Your task to perform on an android device: Show me productivity apps on the Play Store Image 0: 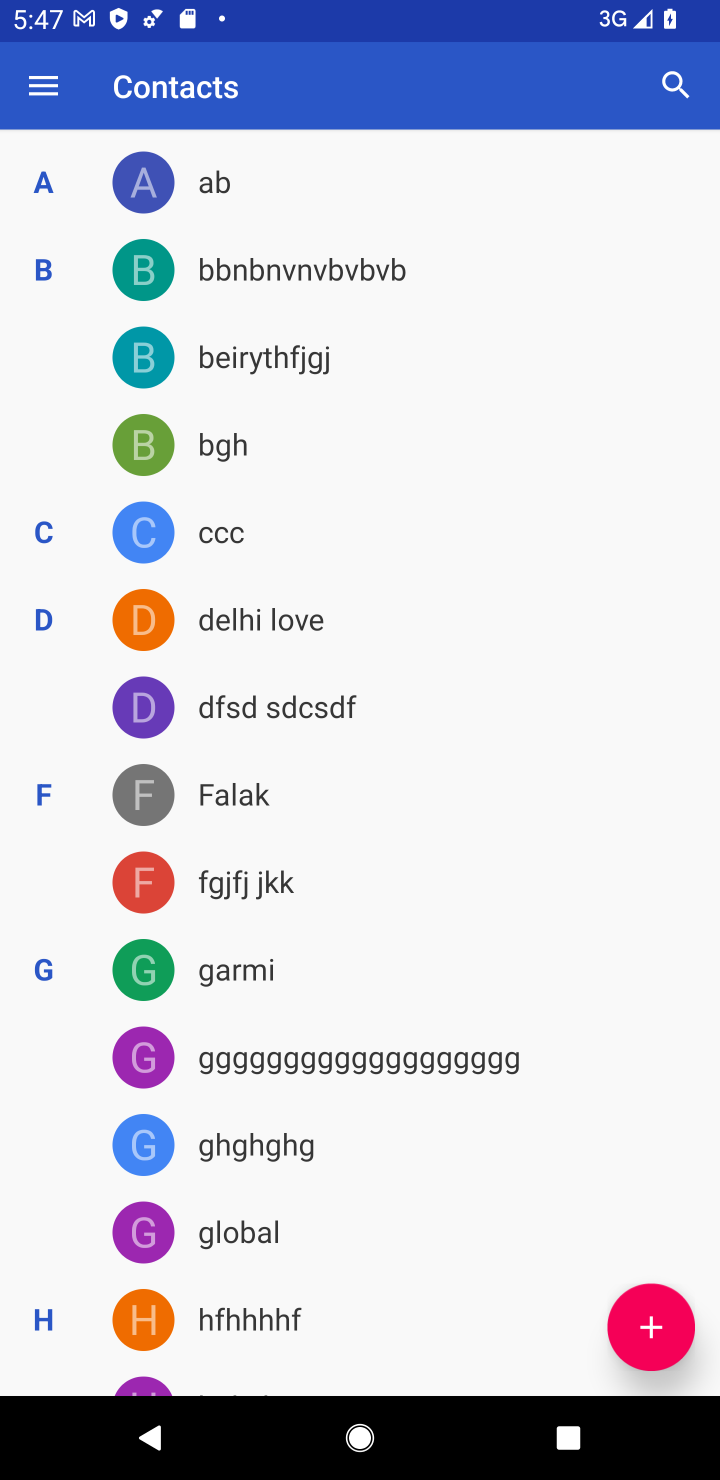
Step 0: press home button
Your task to perform on an android device: Show me productivity apps on the Play Store Image 1: 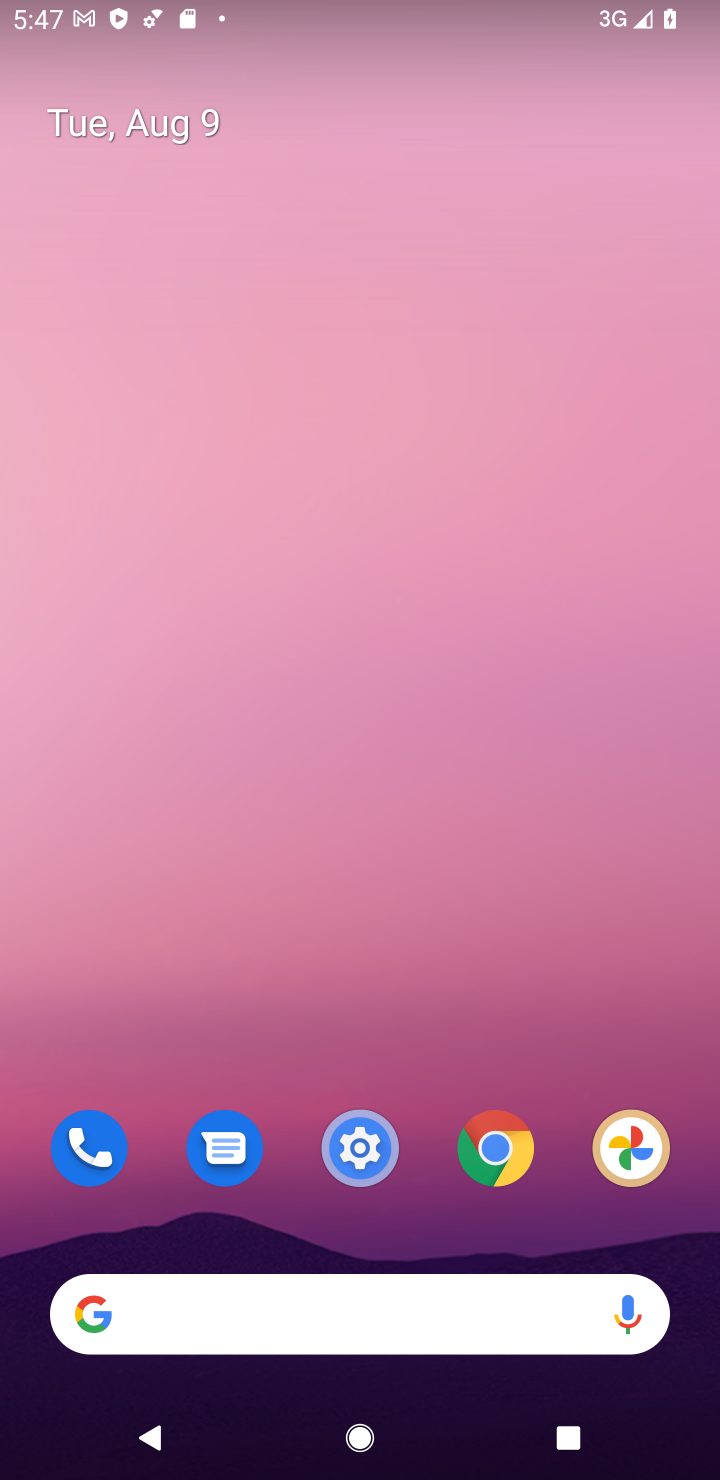
Step 1: drag from (303, 874) to (691, 152)
Your task to perform on an android device: Show me productivity apps on the Play Store Image 2: 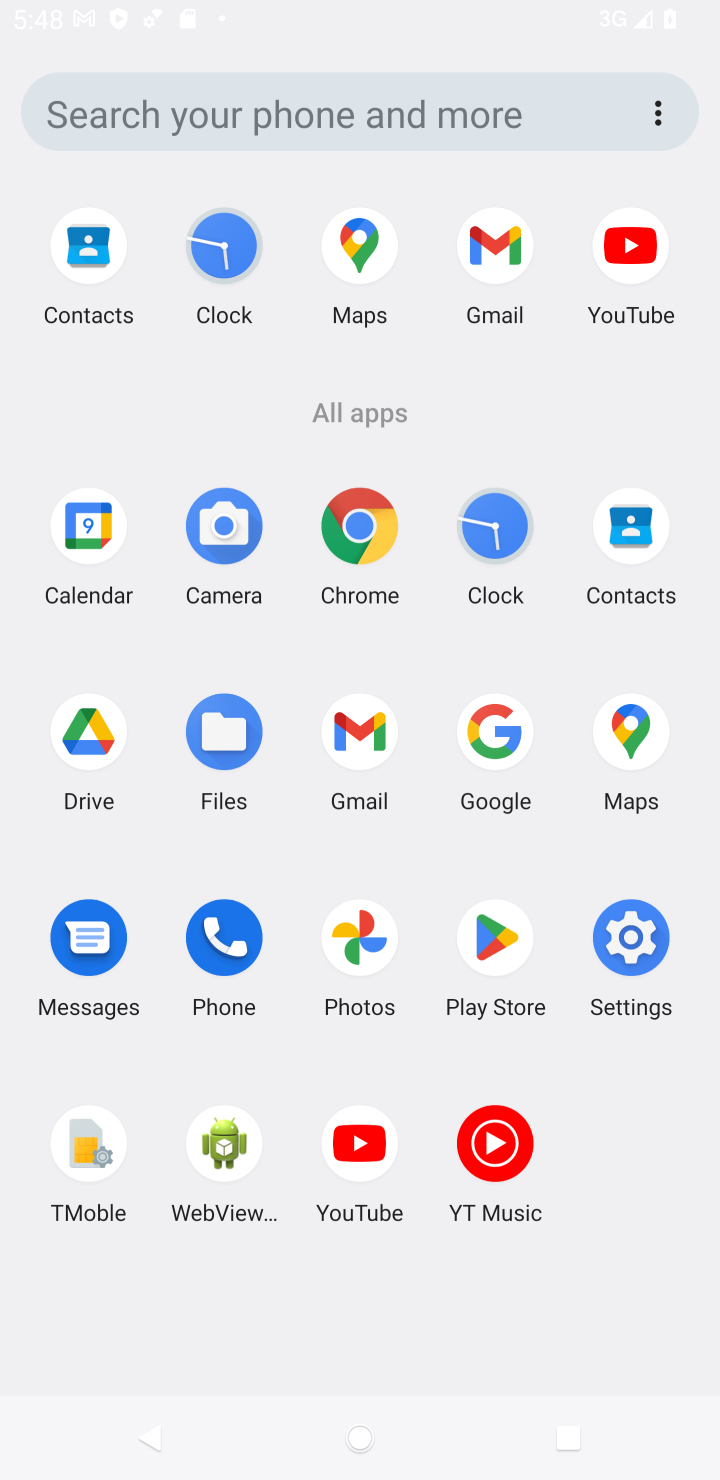
Step 2: click (488, 963)
Your task to perform on an android device: Show me productivity apps on the Play Store Image 3: 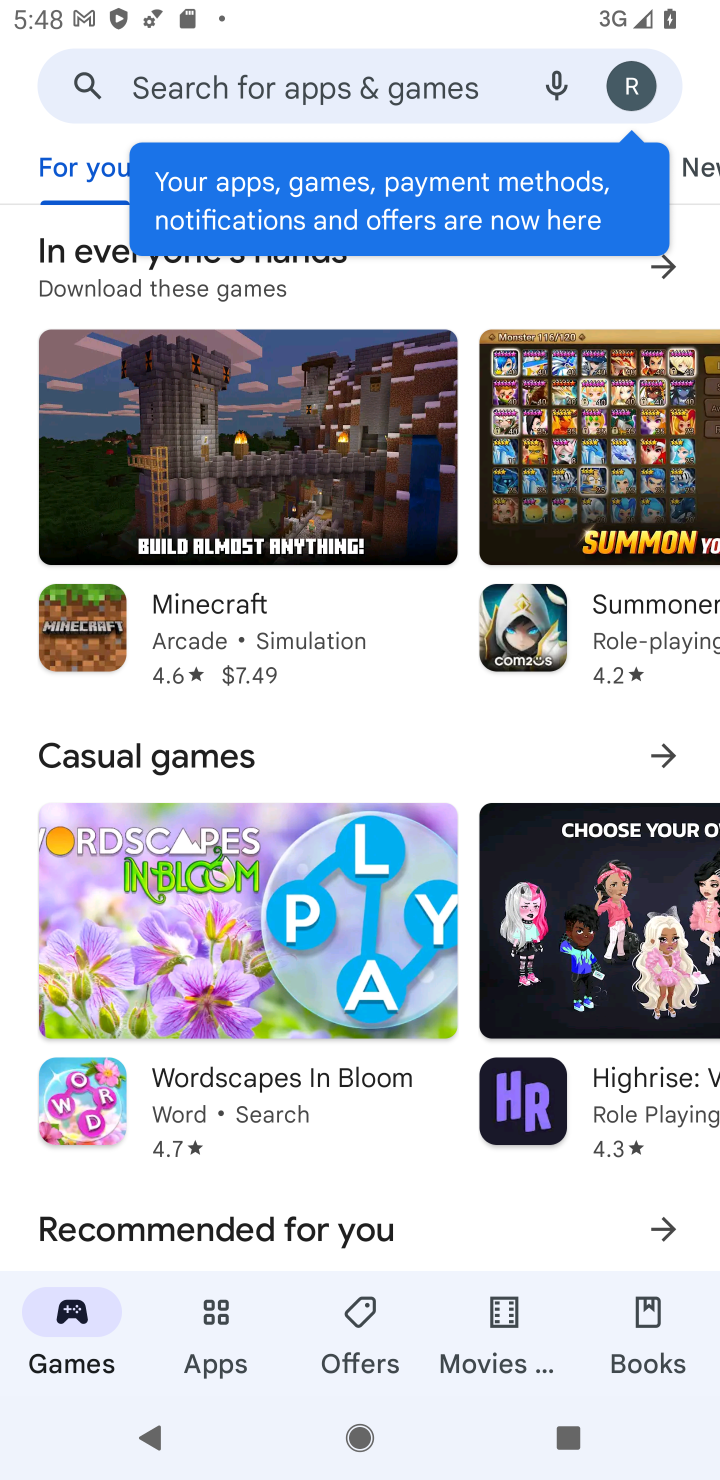
Step 3: click (208, 1347)
Your task to perform on an android device: Show me productivity apps on the Play Store Image 4: 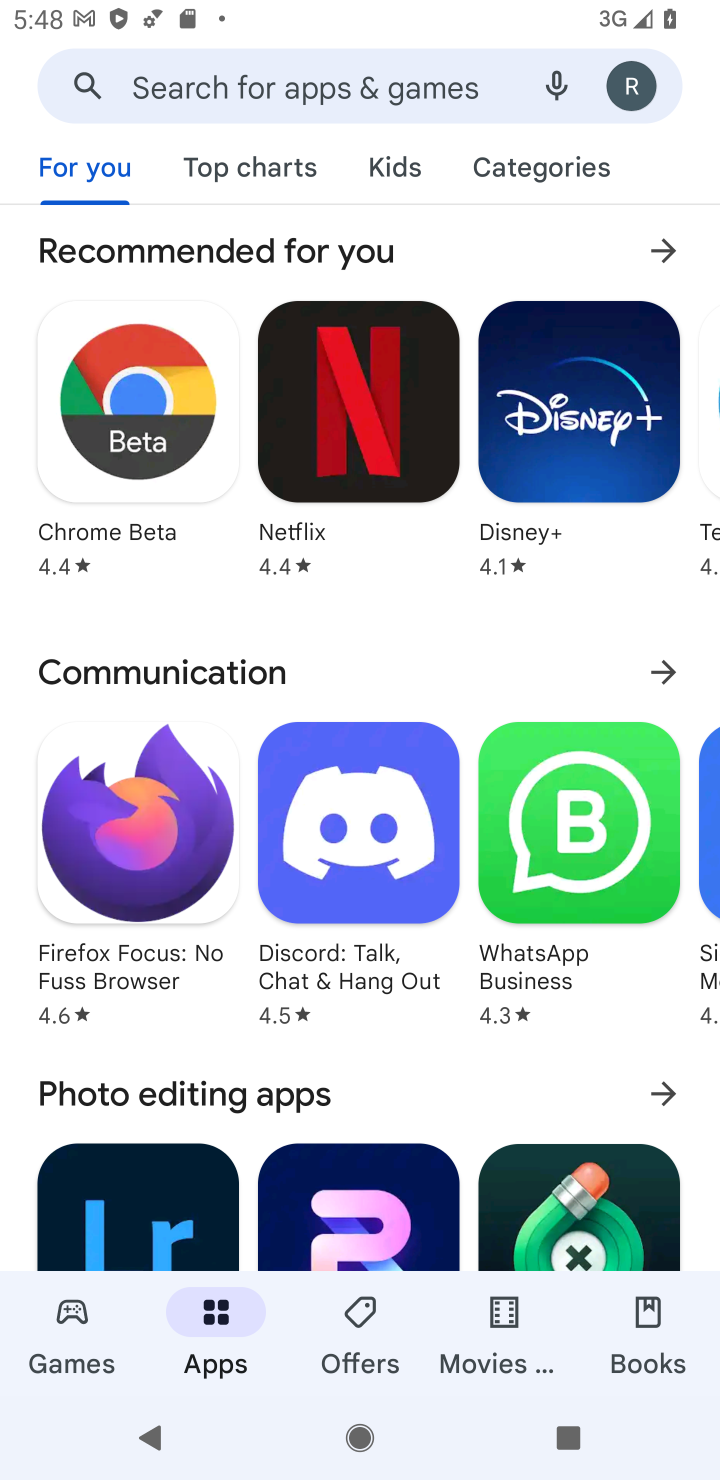
Step 4: click (548, 176)
Your task to perform on an android device: Show me productivity apps on the Play Store Image 5: 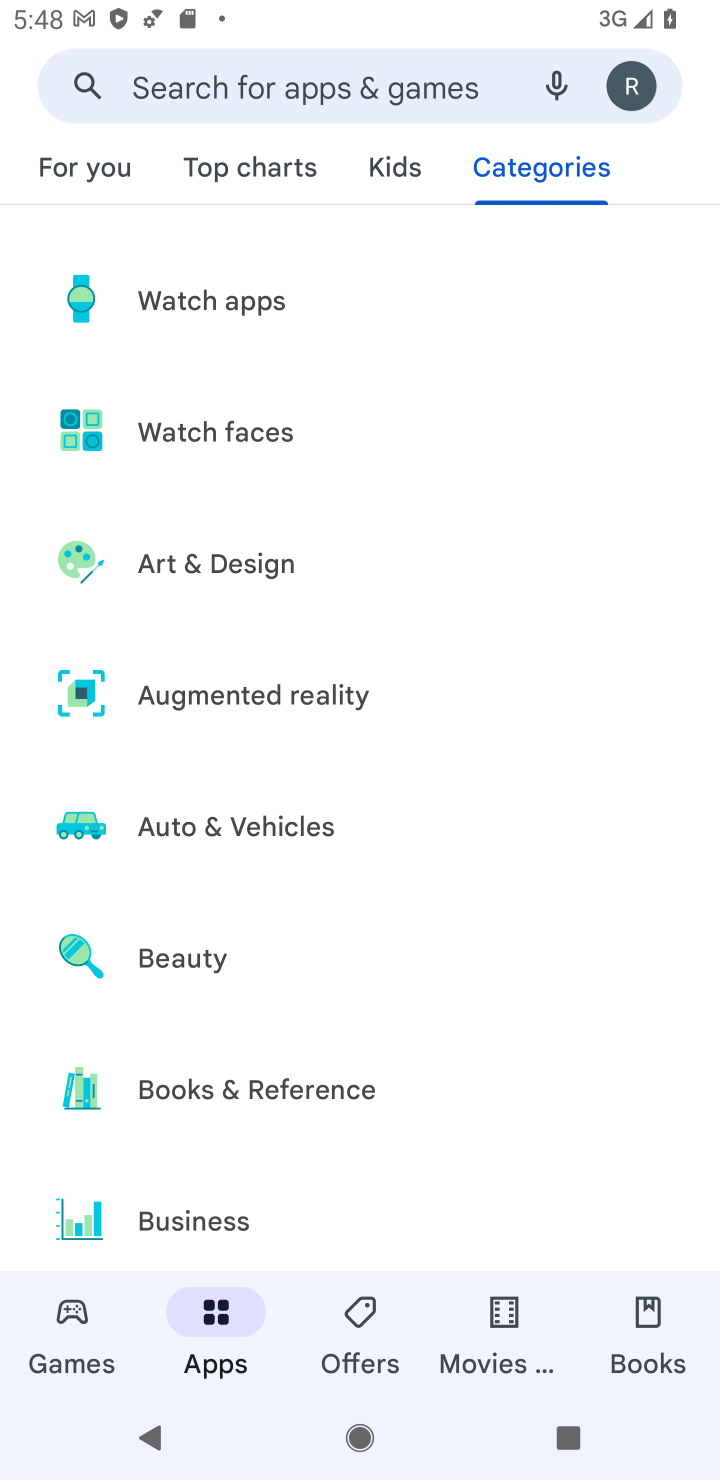
Step 5: drag from (270, 1157) to (220, 68)
Your task to perform on an android device: Show me productivity apps on the Play Store Image 6: 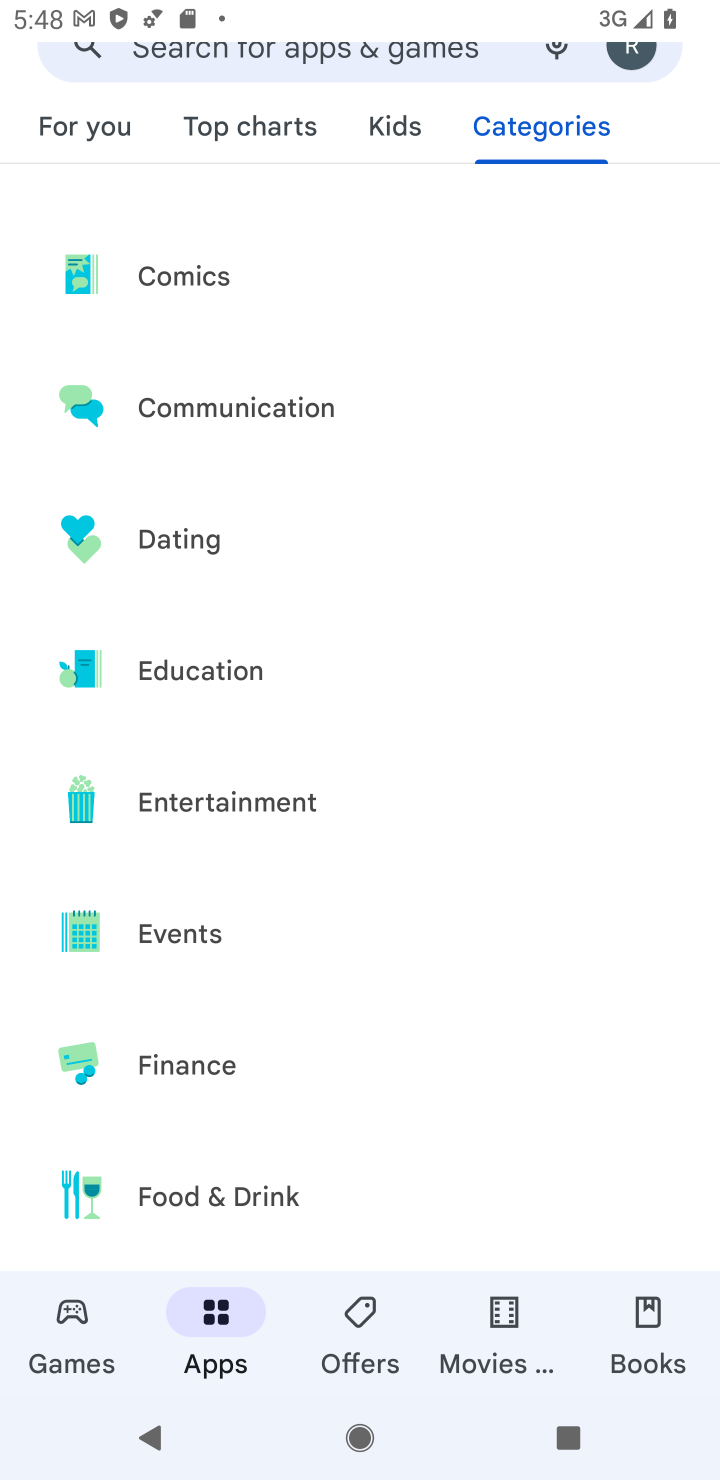
Step 6: drag from (282, 1009) to (215, 65)
Your task to perform on an android device: Show me productivity apps on the Play Store Image 7: 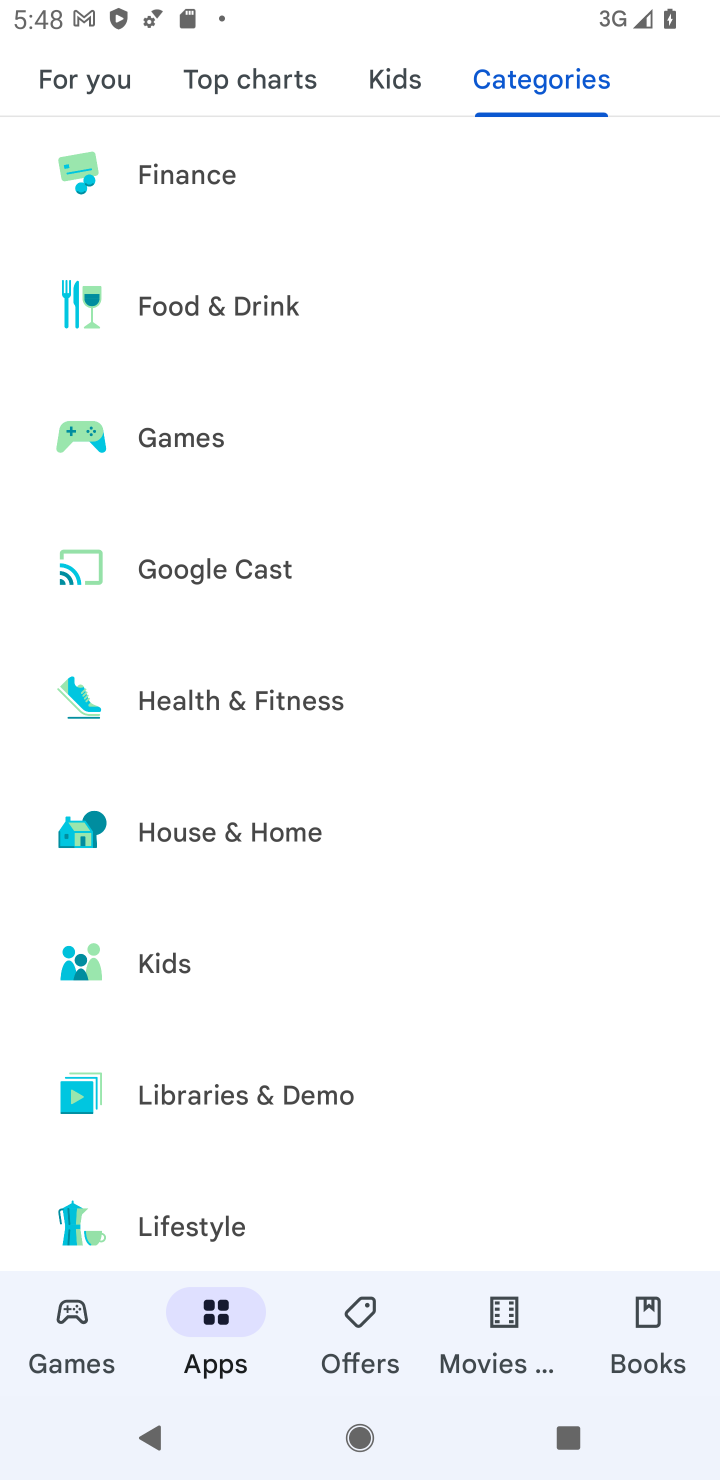
Step 7: drag from (278, 1103) to (354, 201)
Your task to perform on an android device: Show me productivity apps on the Play Store Image 8: 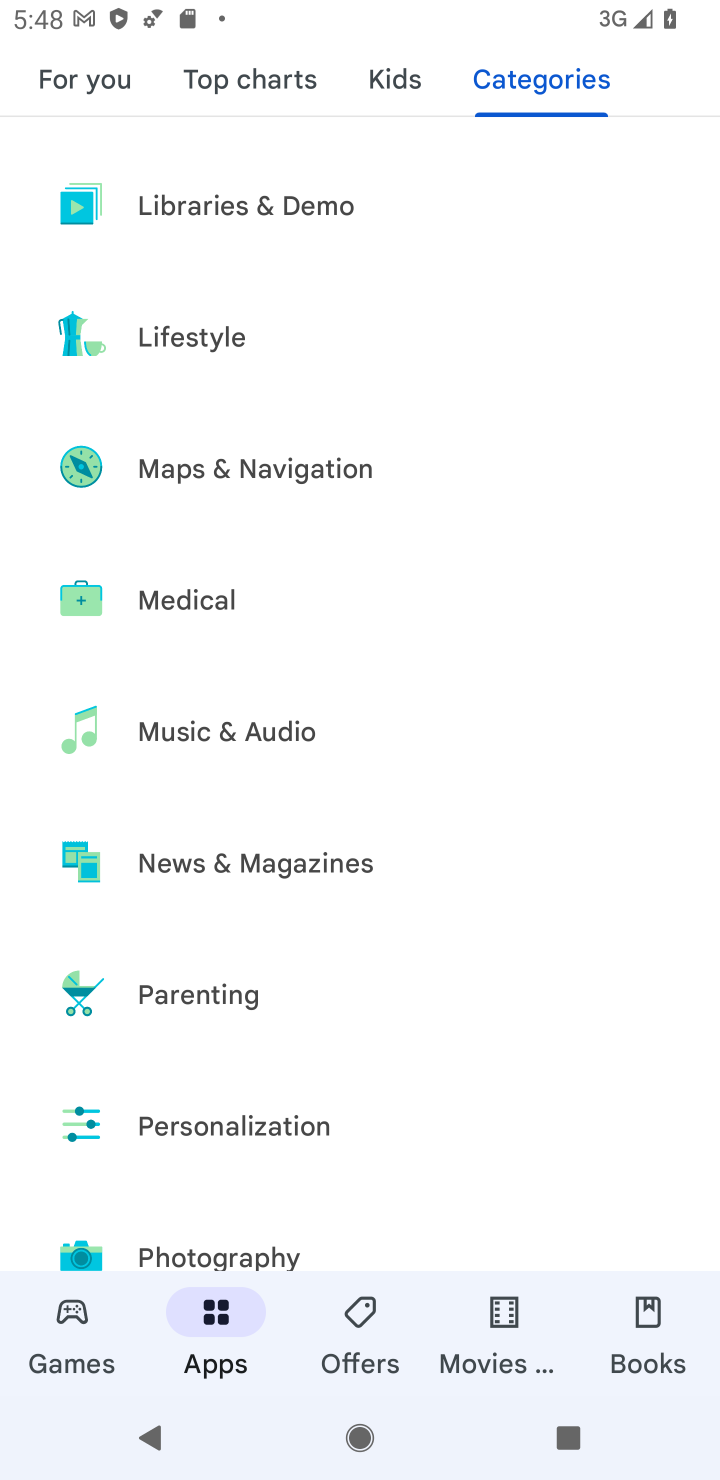
Step 8: drag from (225, 1171) to (305, 415)
Your task to perform on an android device: Show me productivity apps on the Play Store Image 9: 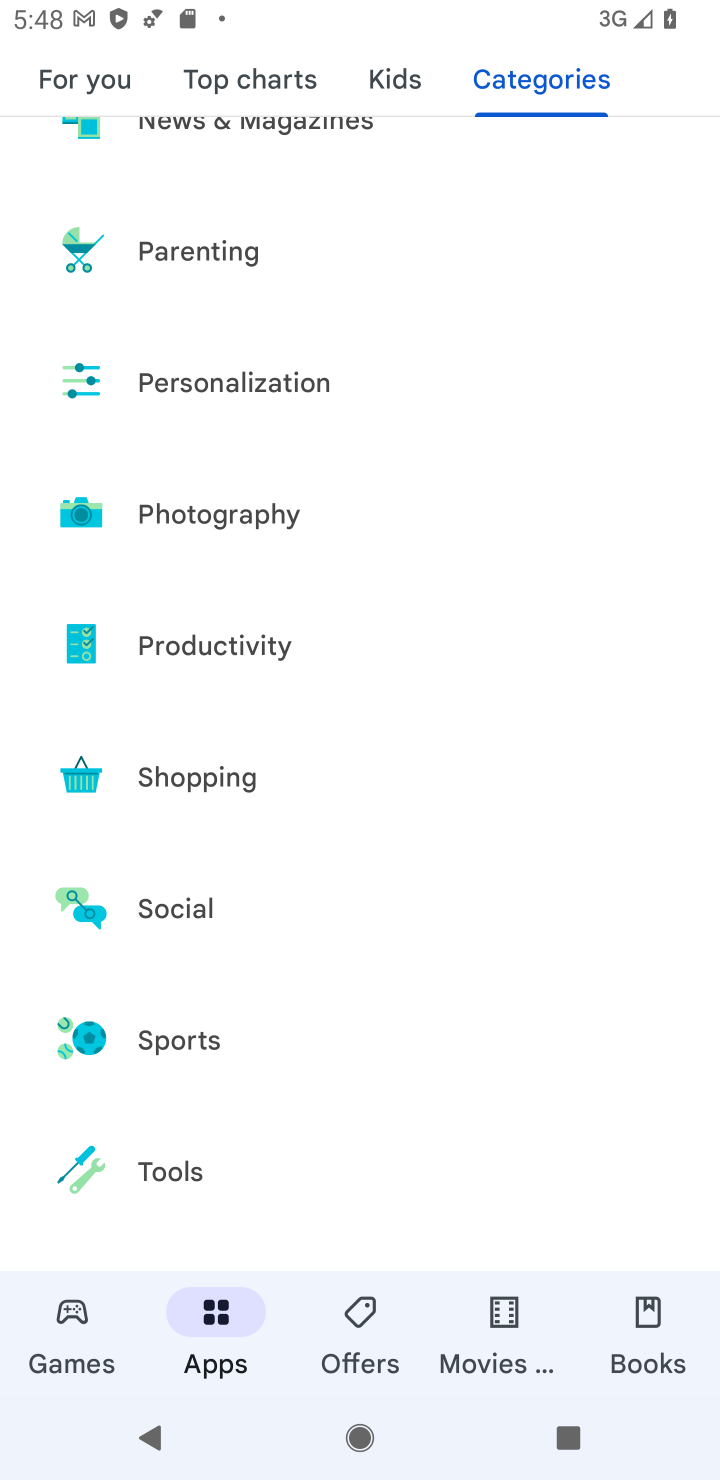
Step 9: click (214, 650)
Your task to perform on an android device: Show me productivity apps on the Play Store Image 10: 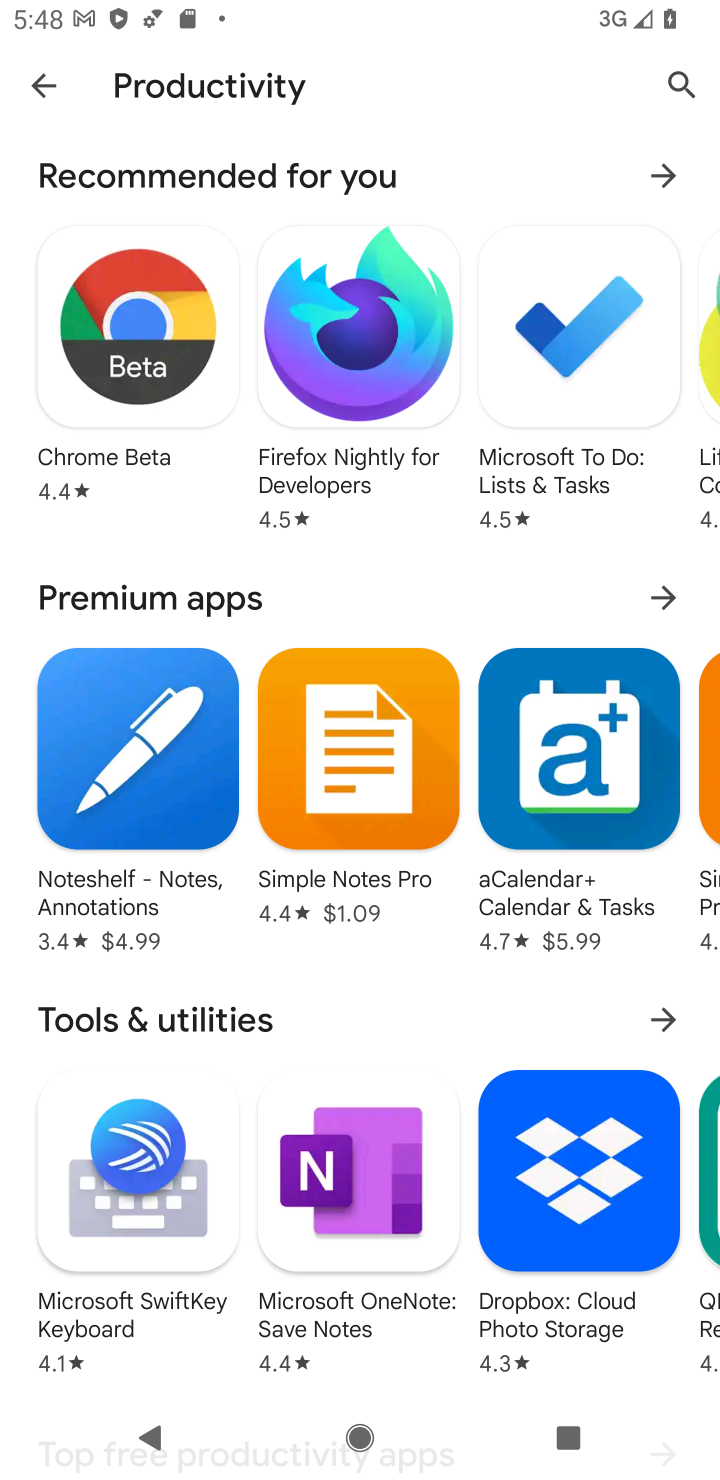
Step 10: task complete